Your task to perform on an android device: turn off notifications in google photos Image 0: 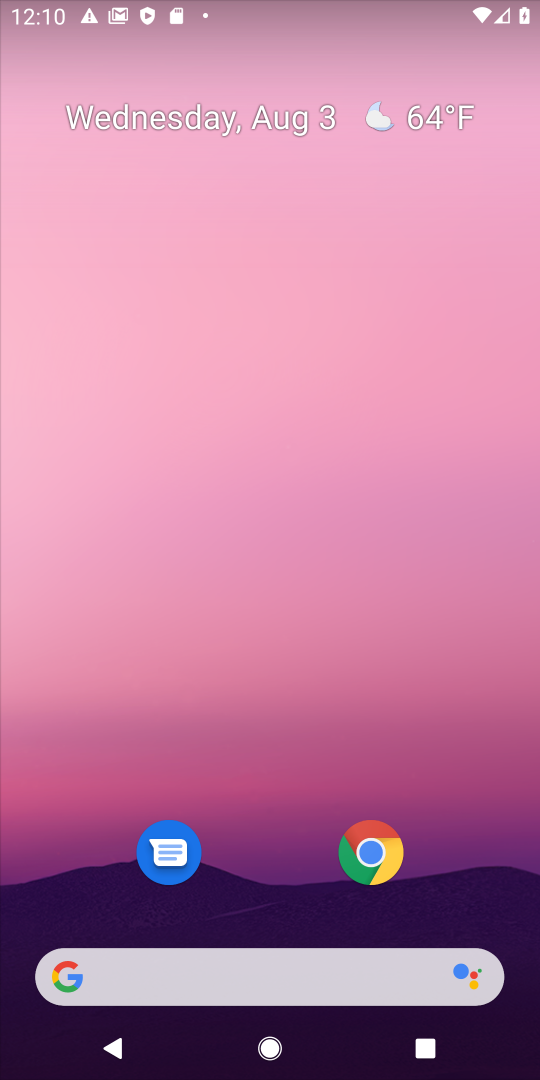
Step 0: drag from (276, 895) to (264, 45)
Your task to perform on an android device: turn off notifications in google photos Image 1: 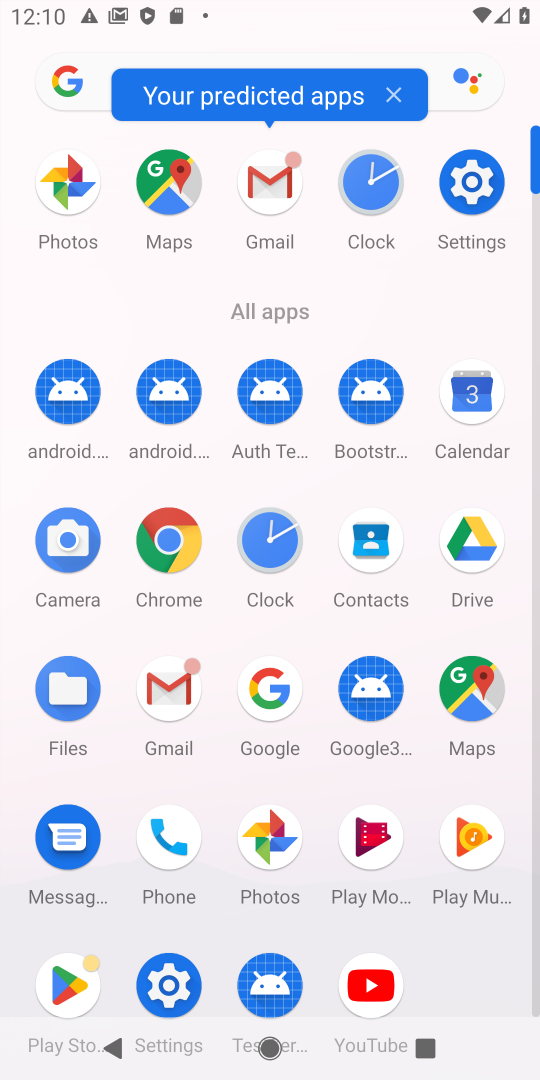
Step 1: click (268, 830)
Your task to perform on an android device: turn off notifications in google photos Image 2: 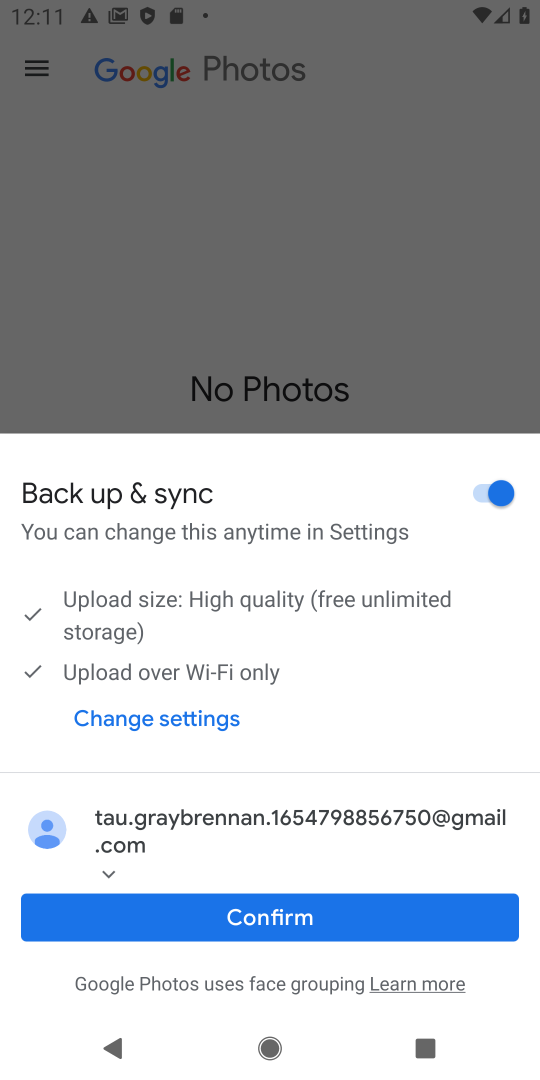
Step 2: click (271, 910)
Your task to perform on an android device: turn off notifications in google photos Image 3: 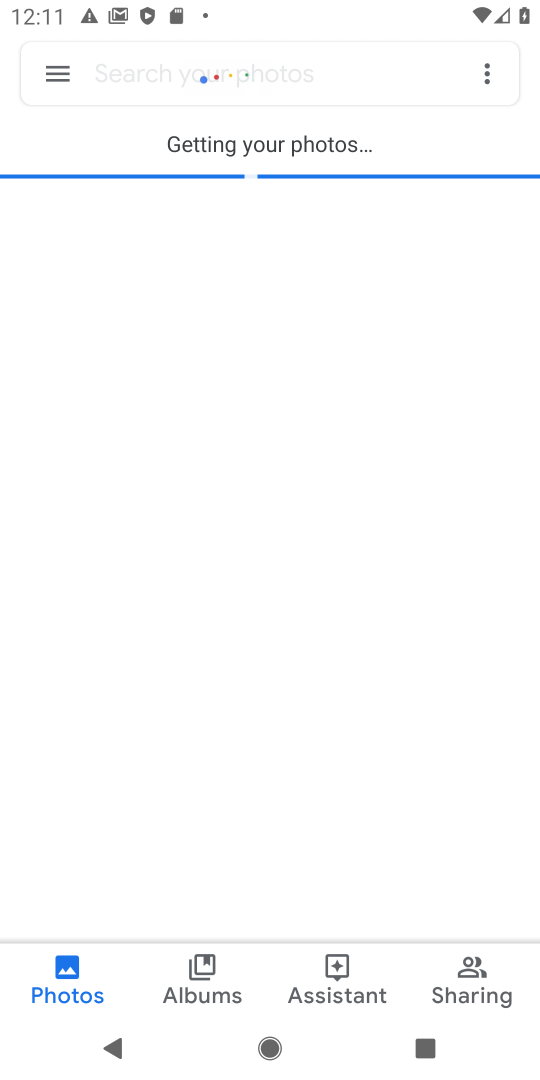
Step 3: click (51, 71)
Your task to perform on an android device: turn off notifications in google photos Image 4: 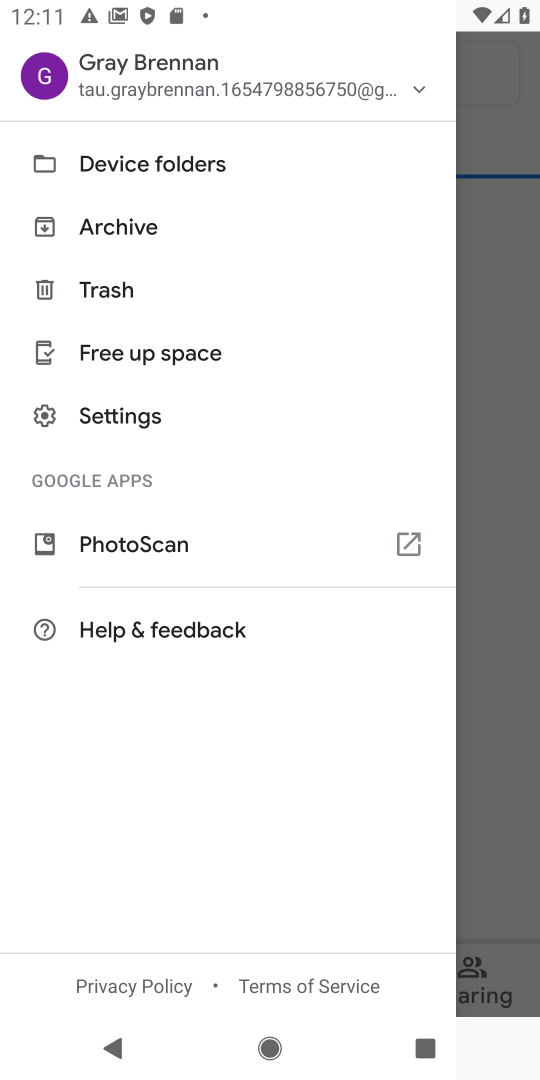
Step 4: click (179, 410)
Your task to perform on an android device: turn off notifications in google photos Image 5: 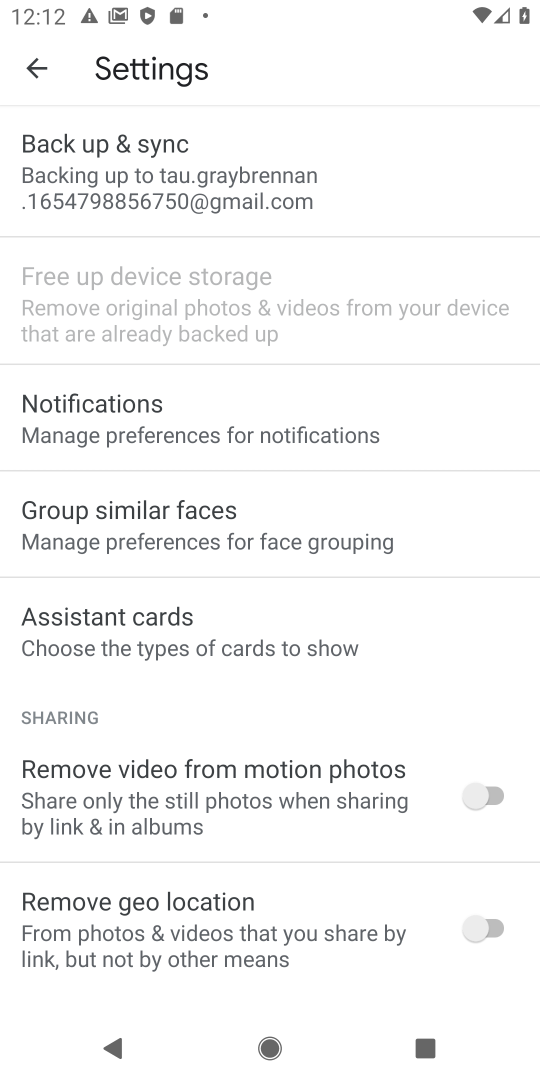
Step 5: click (174, 423)
Your task to perform on an android device: turn off notifications in google photos Image 6: 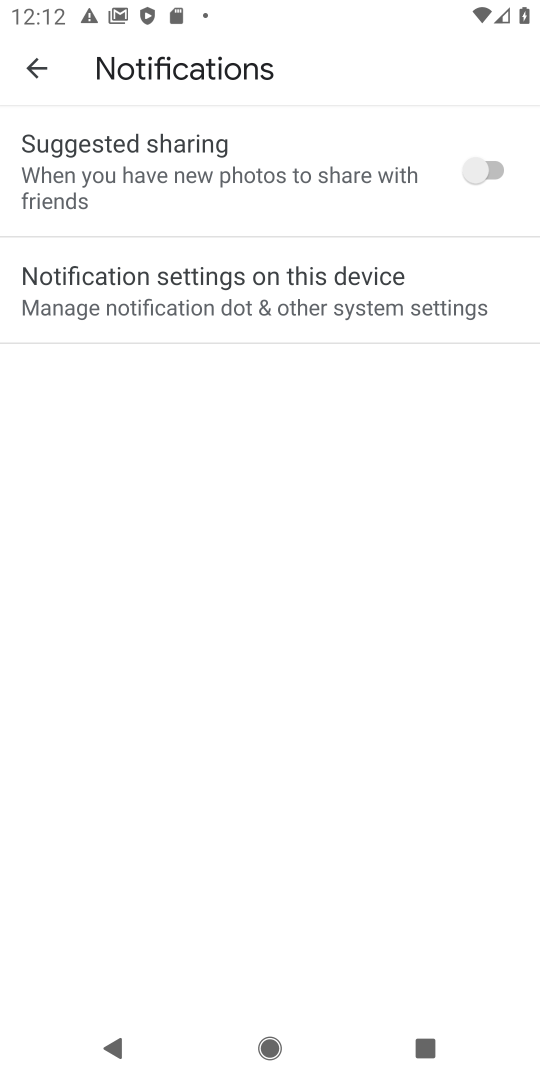
Step 6: drag from (236, 977) to (208, 311)
Your task to perform on an android device: turn off notifications in google photos Image 7: 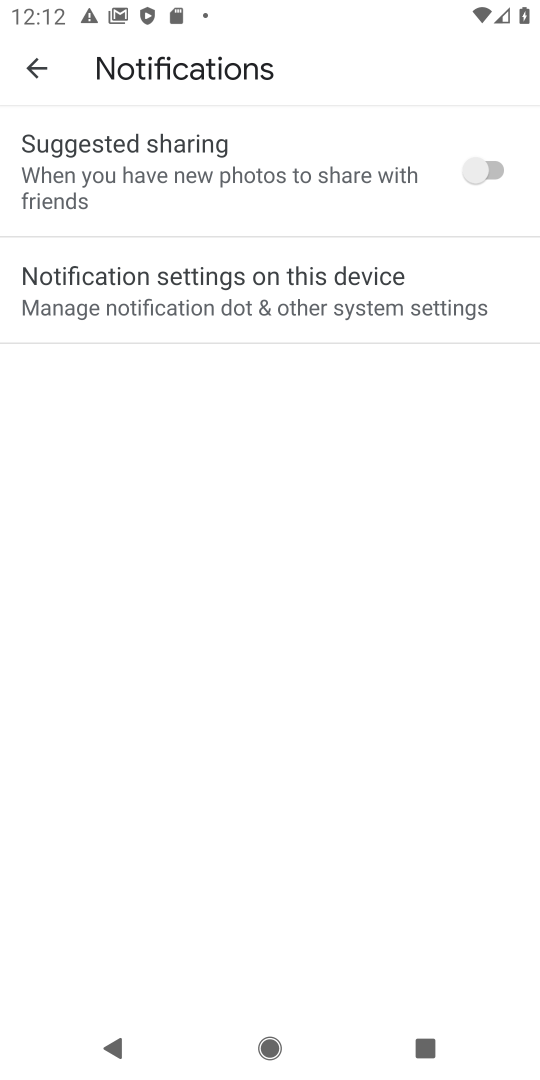
Step 7: click (223, 294)
Your task to perform on an android device: turn off notifications in google photos Image 8: 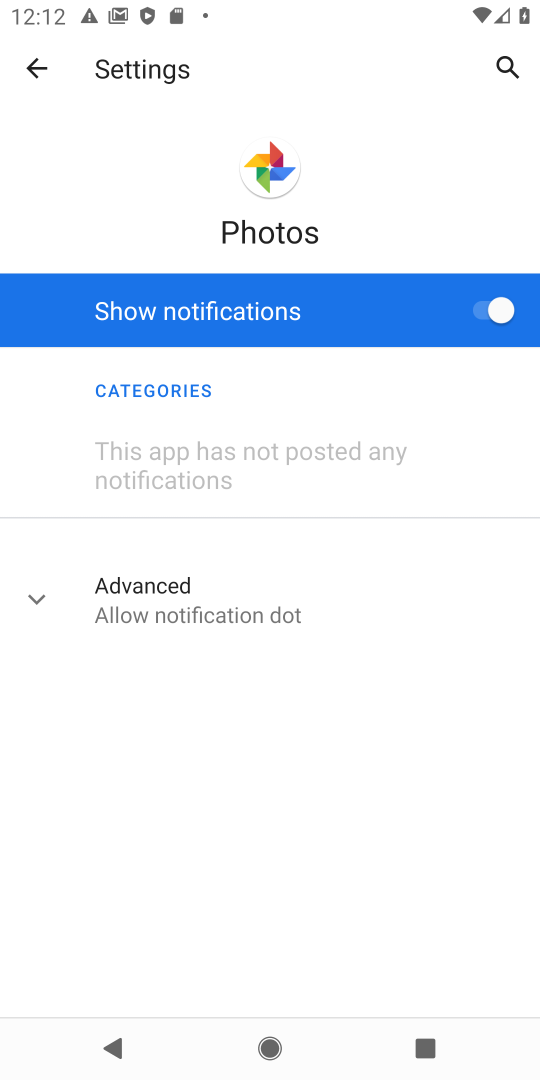
Step 8: click (477, 309)
Your task to perform on an android device: turn off notifications in google photos Image 9: 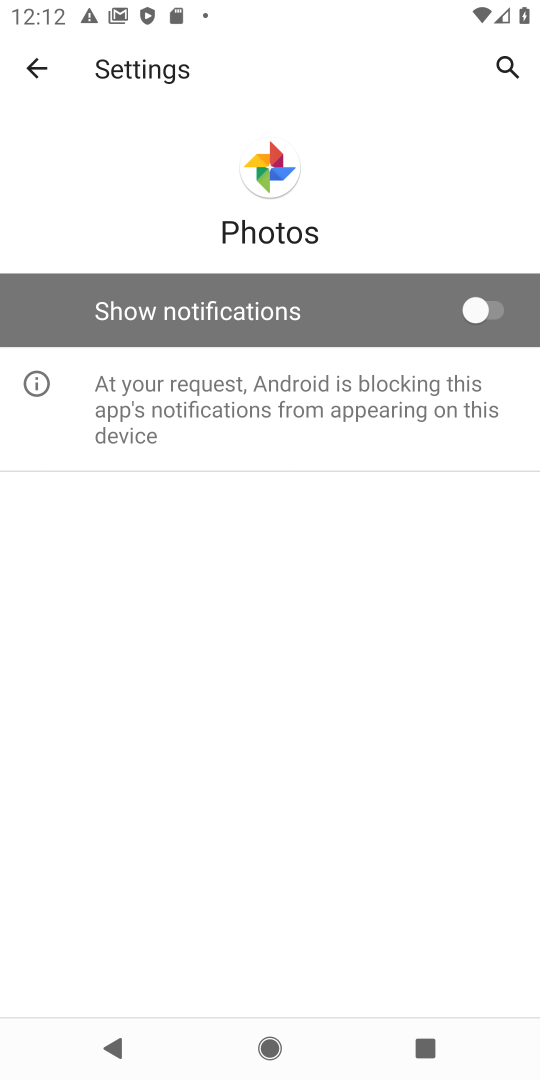
Step 9: task complete